Your task to perform on an android device: Add bose soundlink mini to the cart on ebay Image 0: 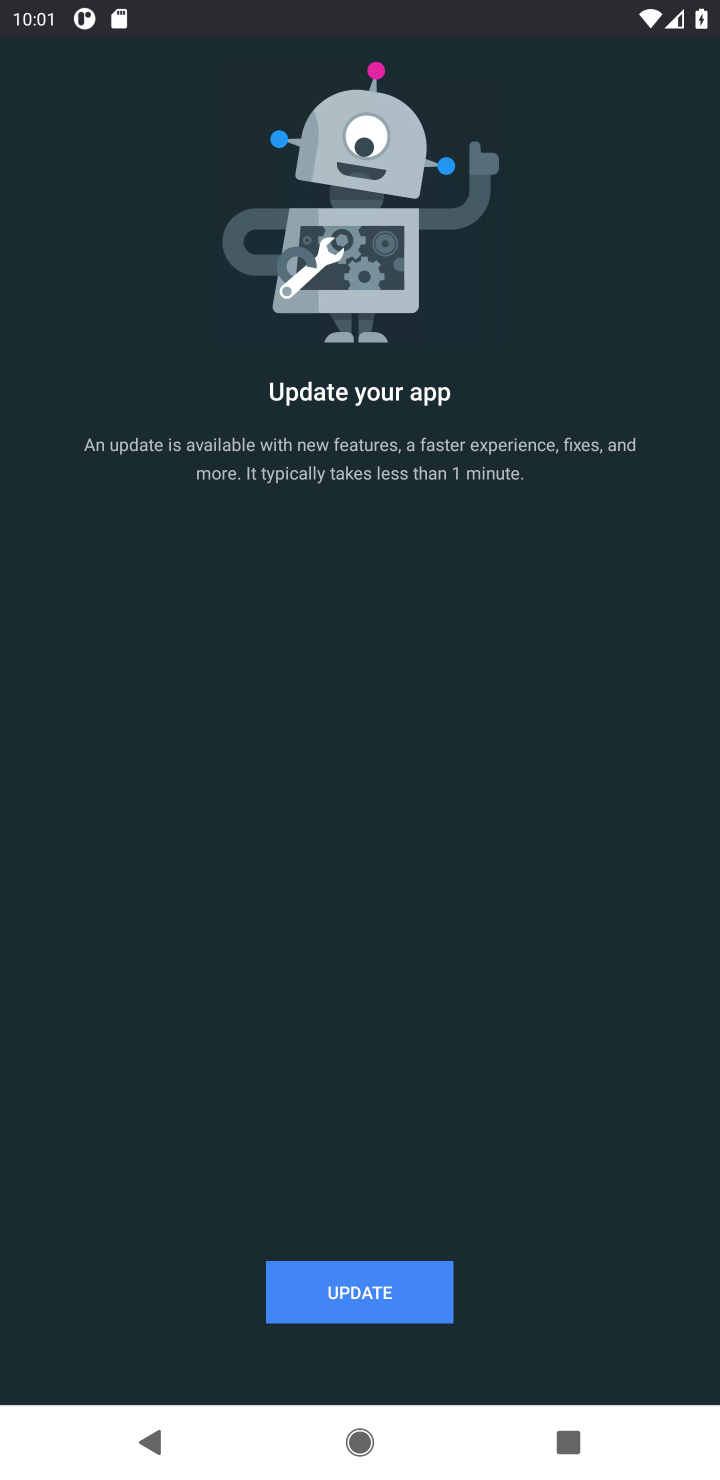
Step 0: press home button
Your task to perform on an android device: Add bose soundlink mini to the cart on ebay Image 1: 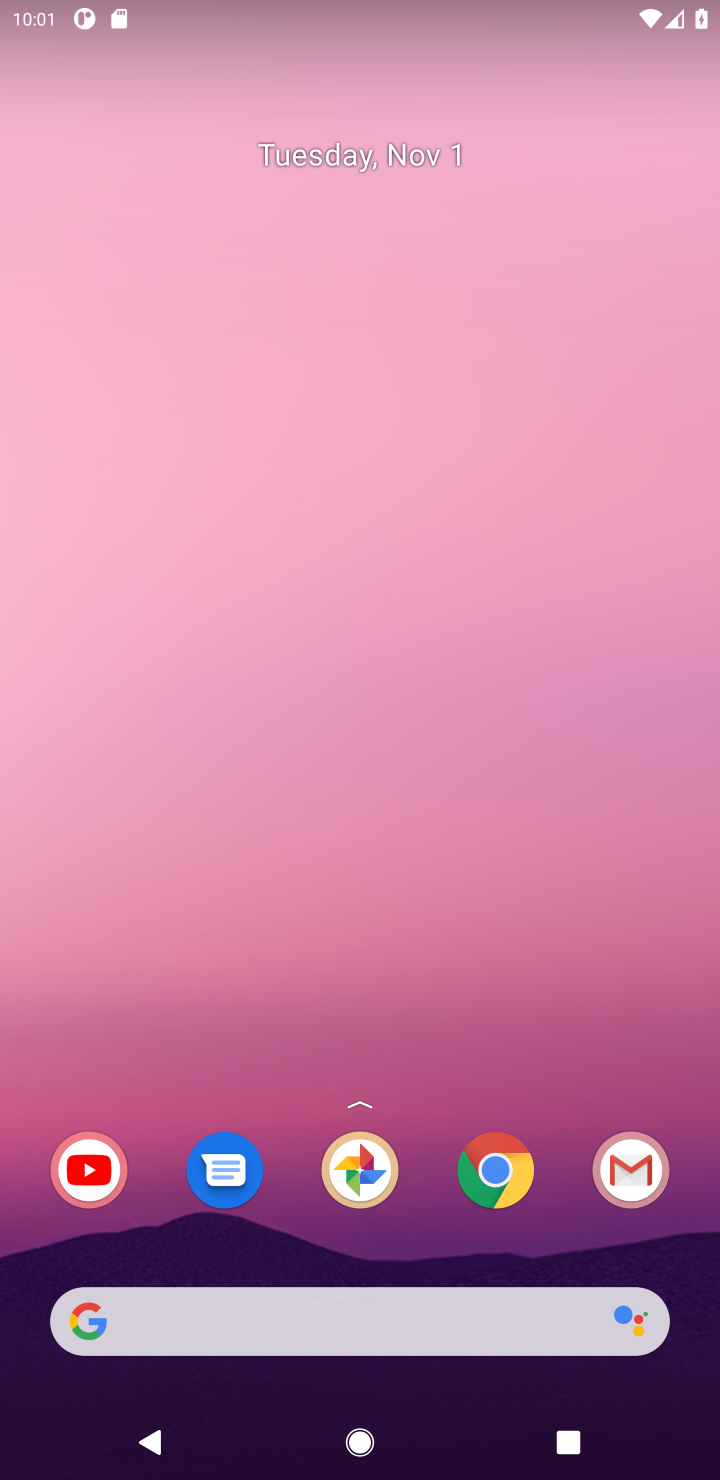
Step 1: click (495, 1172)
Your task to perform on an android device: Add bose soundlink mini to the cart on ebay Image 2: 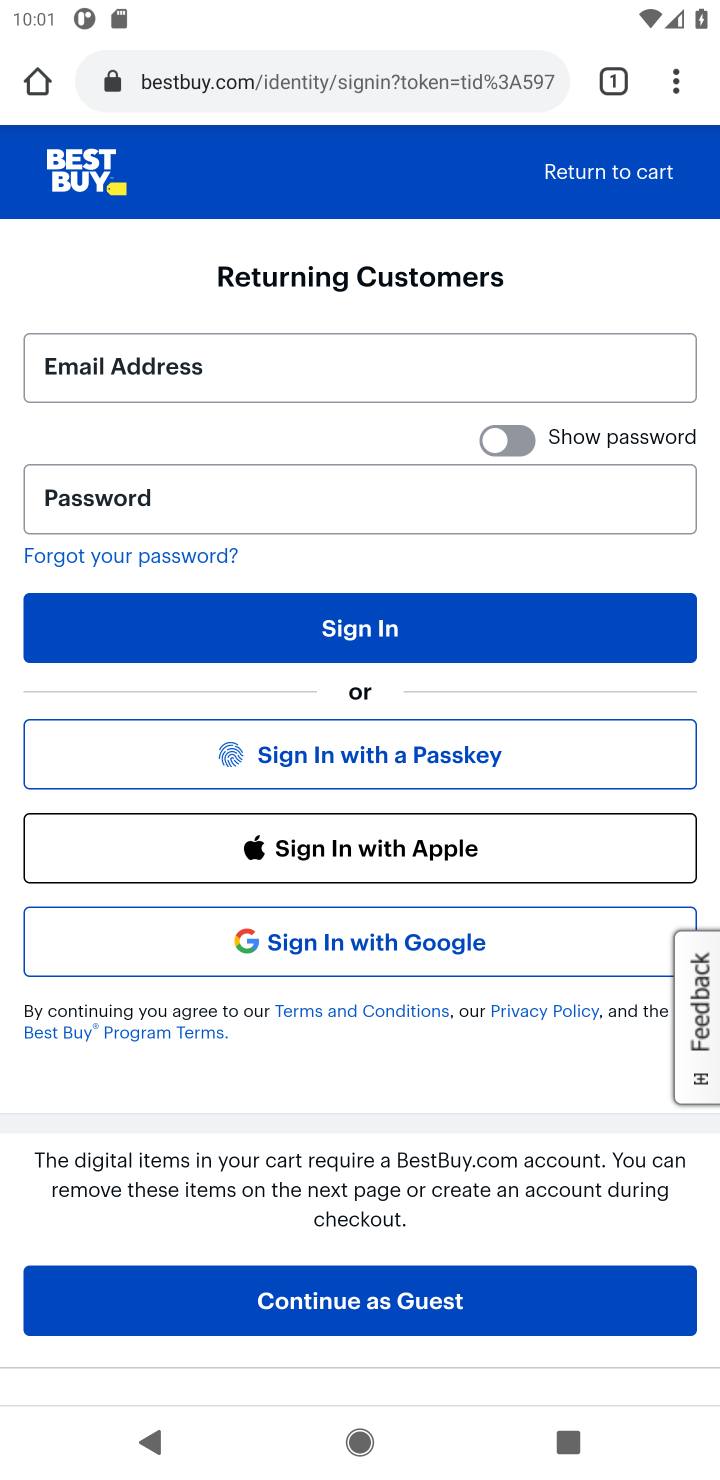
Step 2: click (369, 79)
Your task to perform on an android device: Add bose soundlink mini to the cart on ebay Image 3: 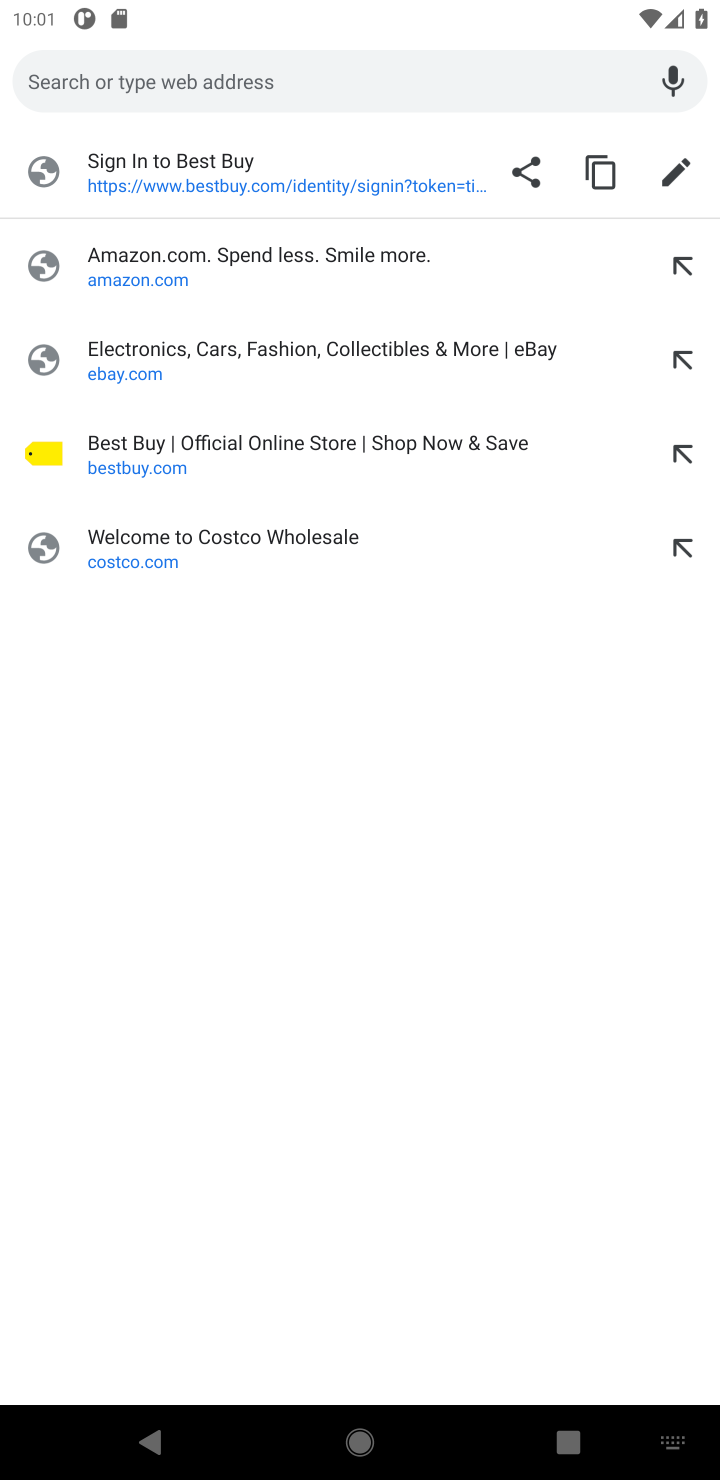
Step 3: type "ebay"
Your task to perform on an android device: Add bose soundlink mini to the cart on ebay Image 4: 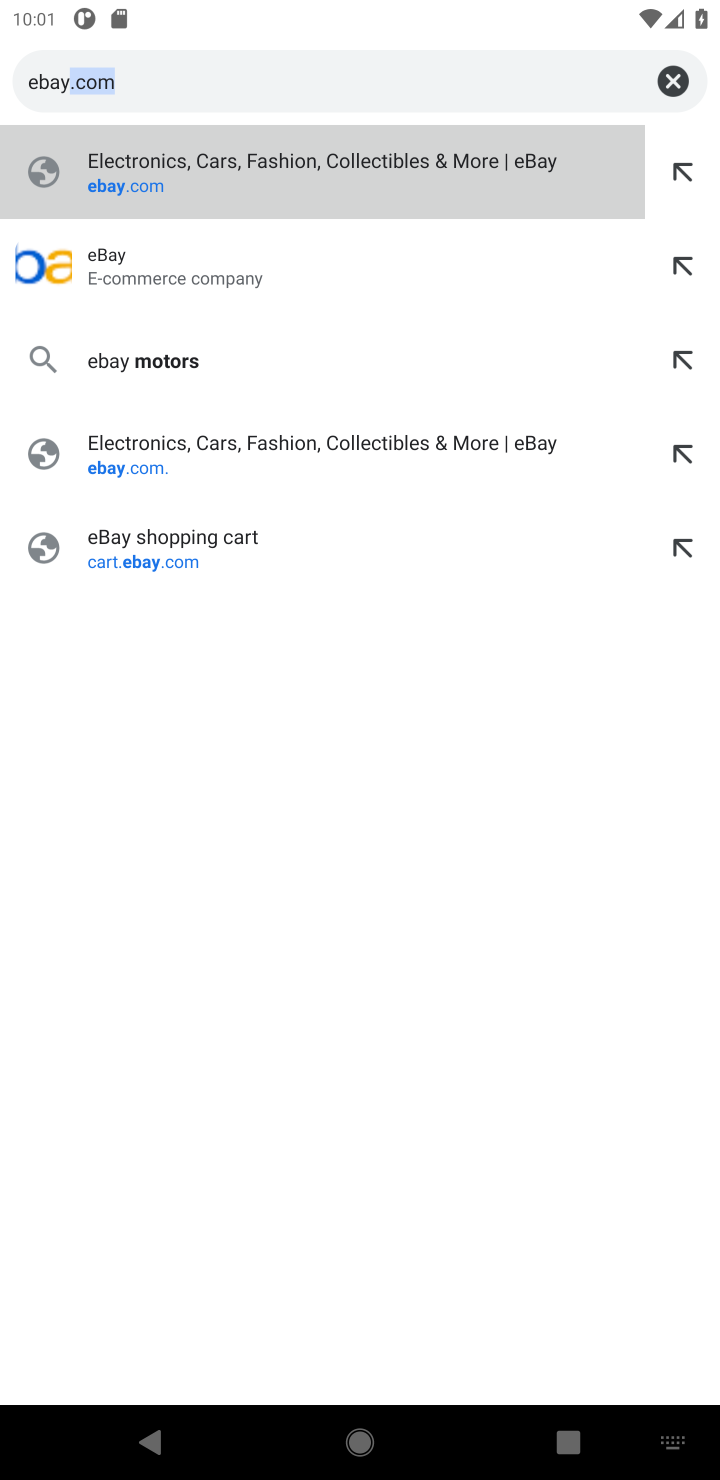
Step 4: press enter
Your task to perform on an android device: Add bose soundlink mini to the cart on ebay Image 5: 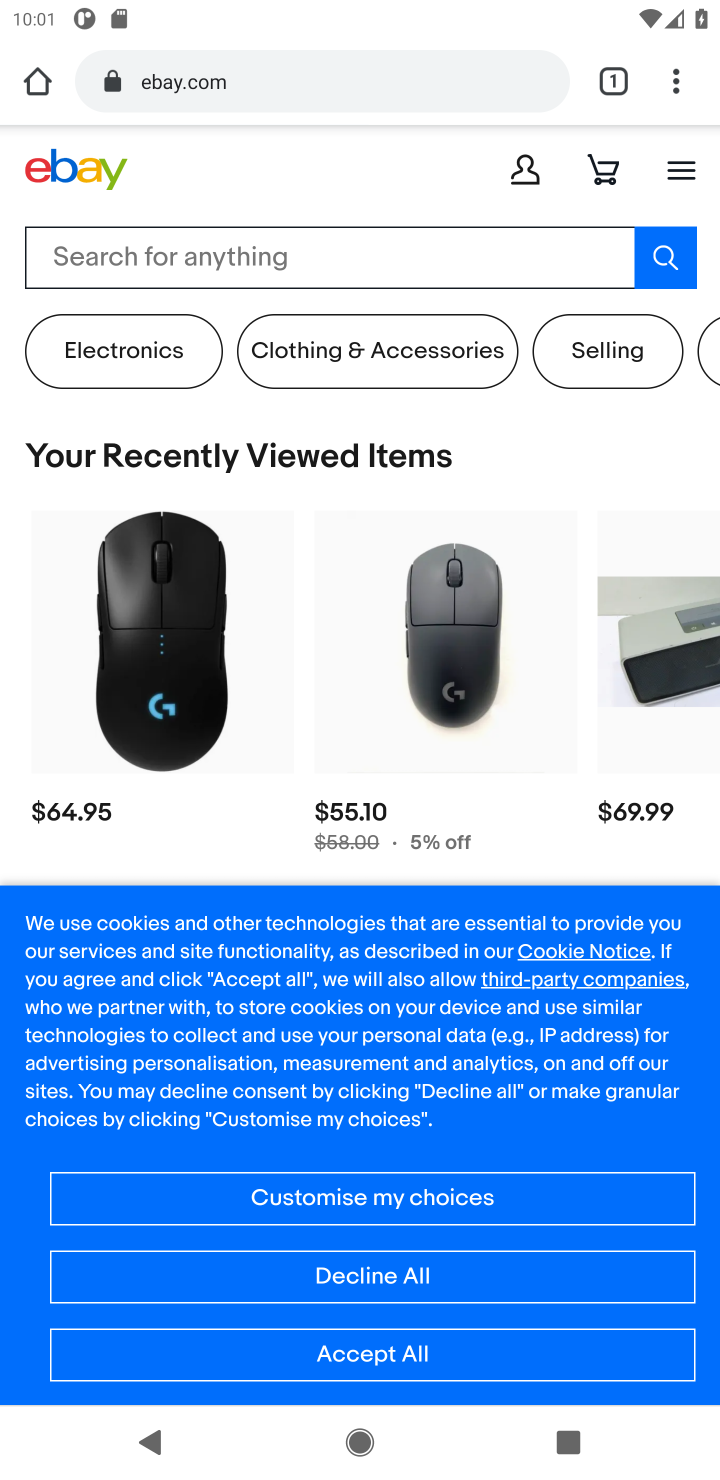
Step 5: click (413, 1356)
Your task to perform on an android device: Add bose soundlink mini to the cart on ebay Image 6: 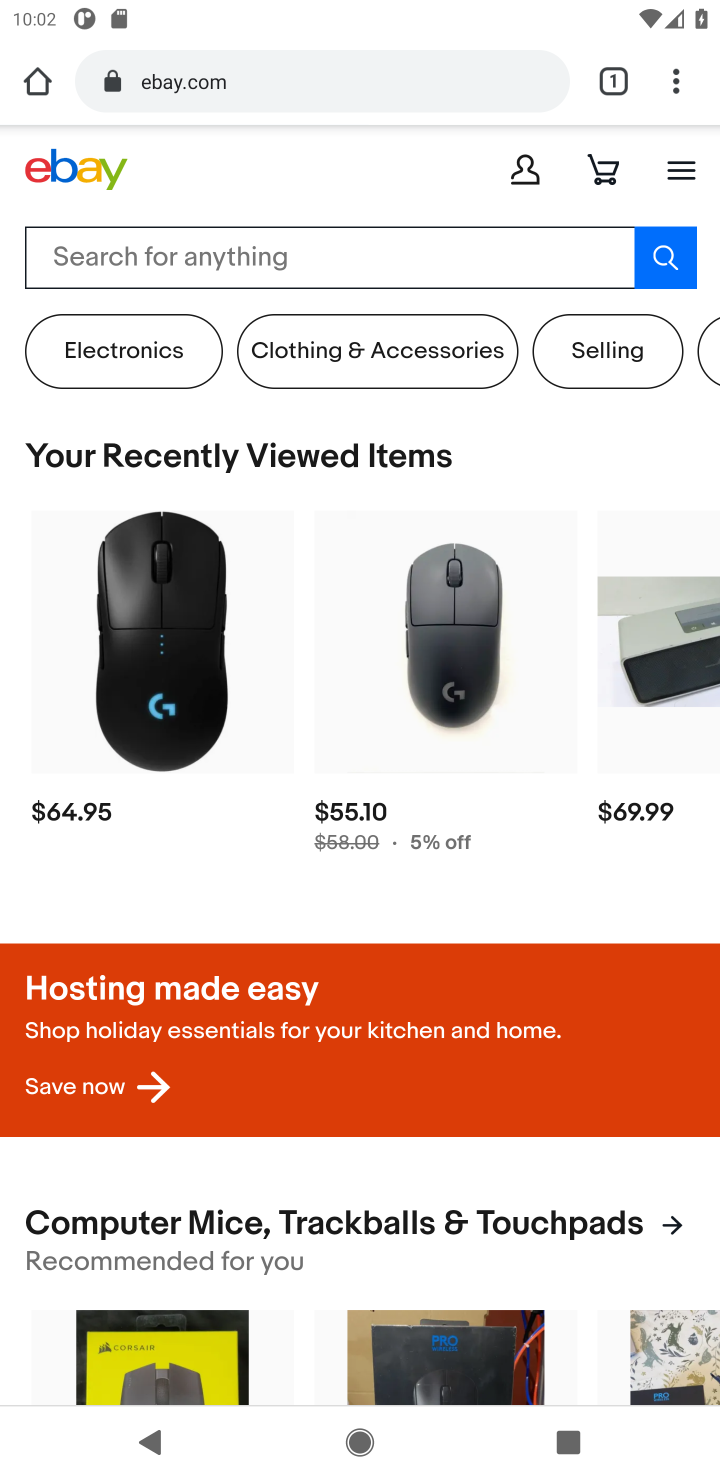
Step 6: click (280, 268)
Your task to perform on an android device: Add bose soundlink mini to the cart on ebay Image 7: 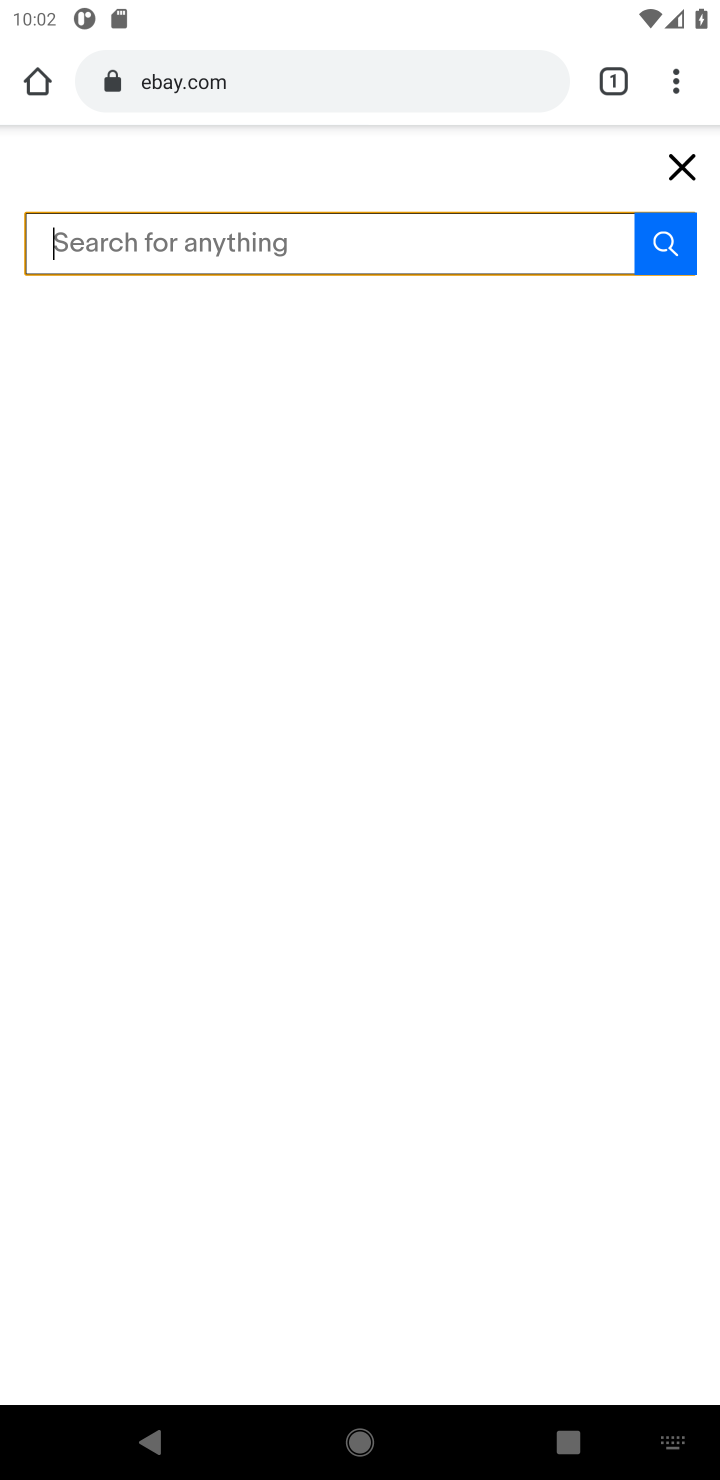
Step 7: type "bose soundlink mini"
Your task to perform on an android device: Add bose soundlink mini to the cart on ebay Image 8: 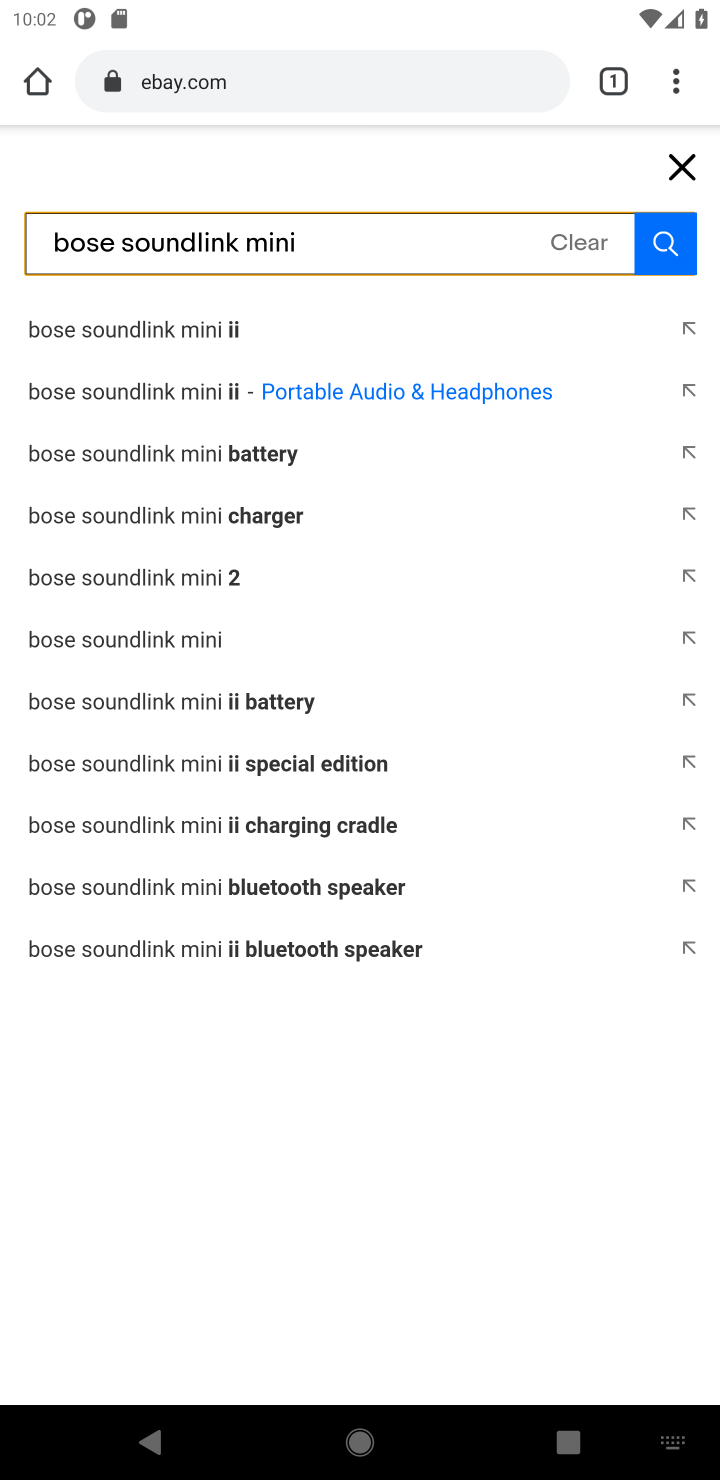
Step 8: type ""
Your task to perform on an android device: Add bose soundlink mini to the cart on ebay Image 9: 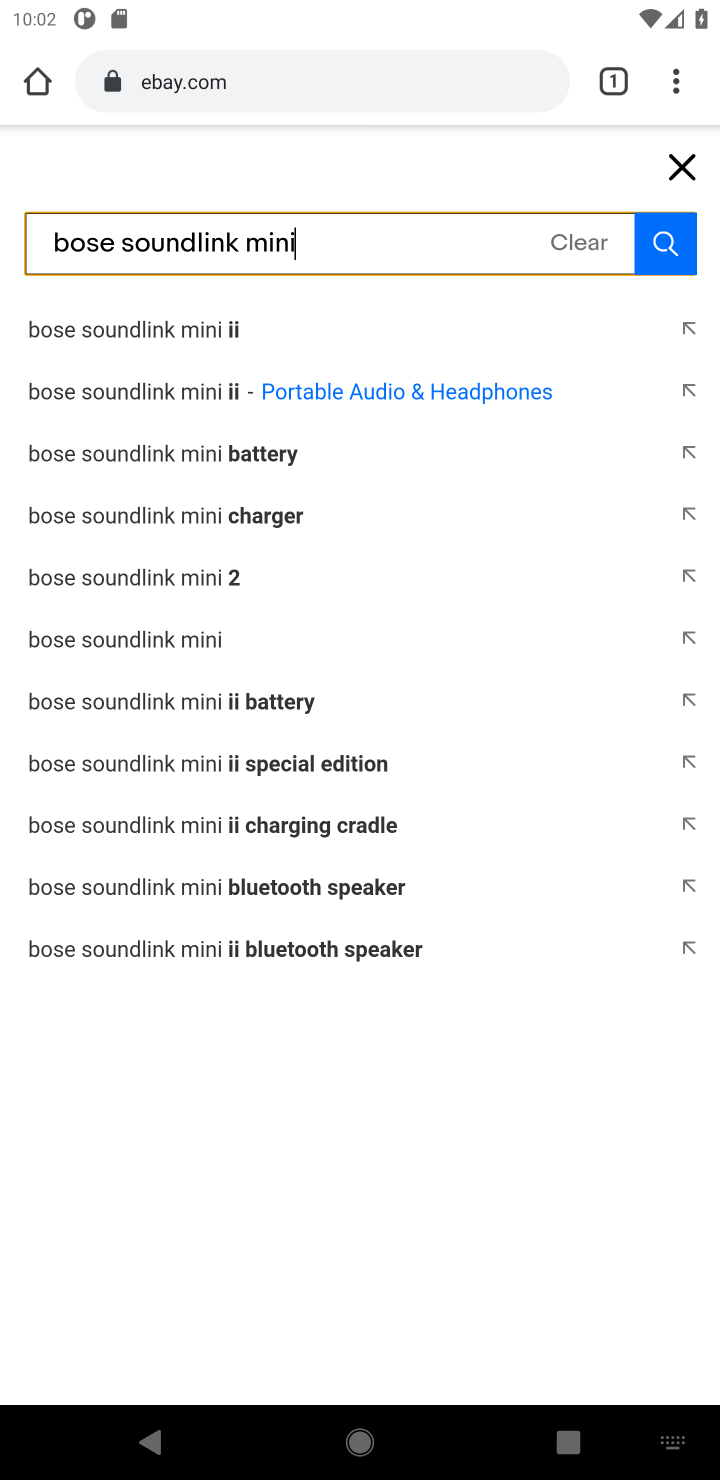
Step 9: press enter
Your task to perform on an android device: Add bose soundlink mini to the cart on ebay Image 10: 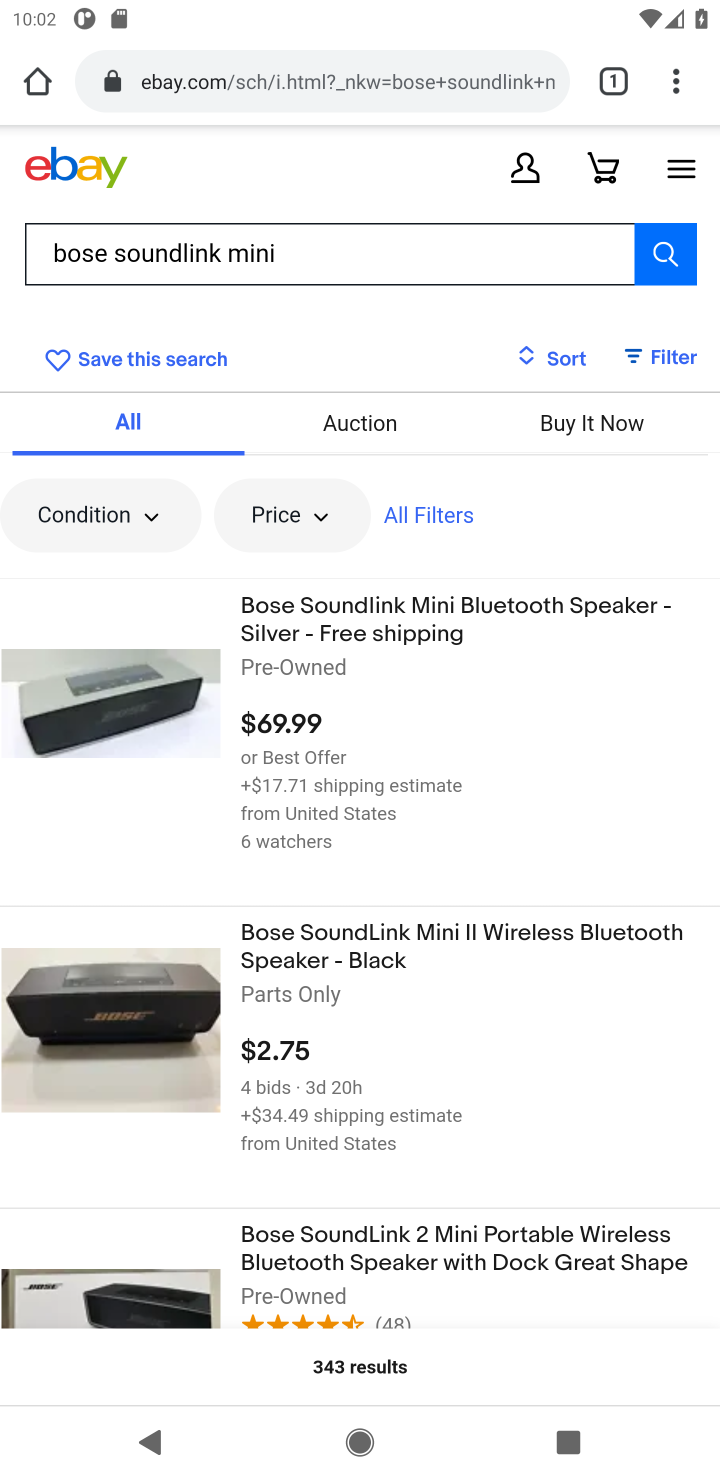
Step 10: click (376, 614)
Your task to perform on an android device: Add bose soundlink mini to the cart on ebay Image 11: 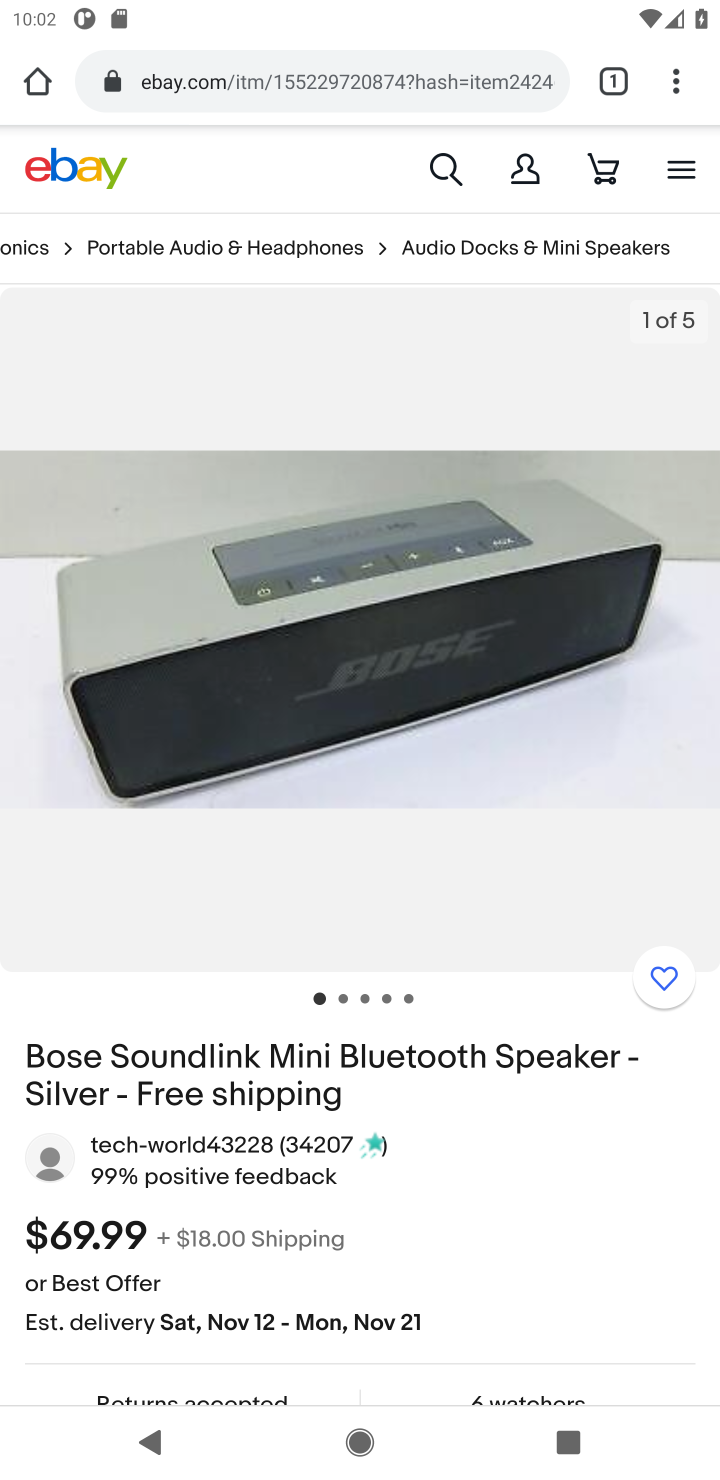
Step 11: drag from (469, 1052) to (429, 453)
Your task to perform on an android device: Add bose soundlink mini to the cart on ebay Image 12: 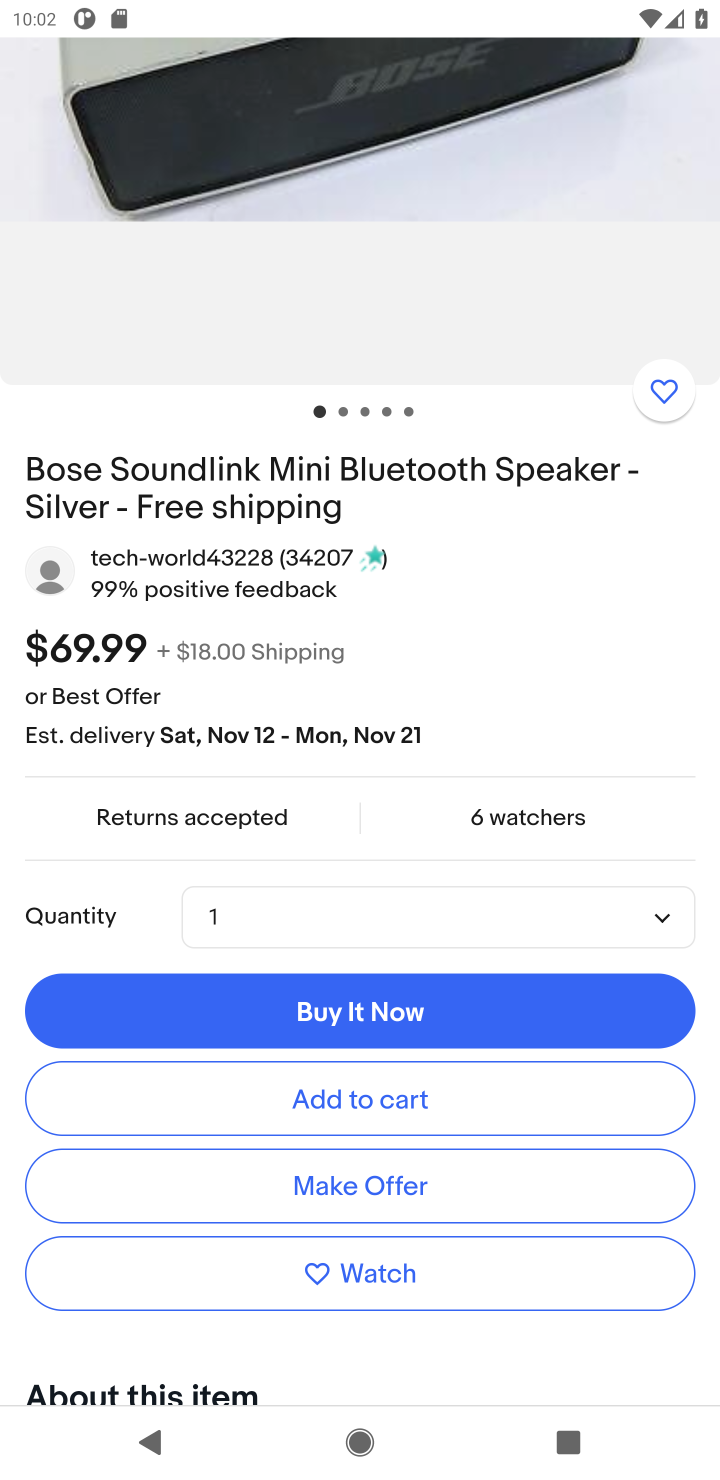
Step 12: click (426, 1102)
Your task to perform on an android device: Add bose soundlink mini to the cart on ebay Image 13: 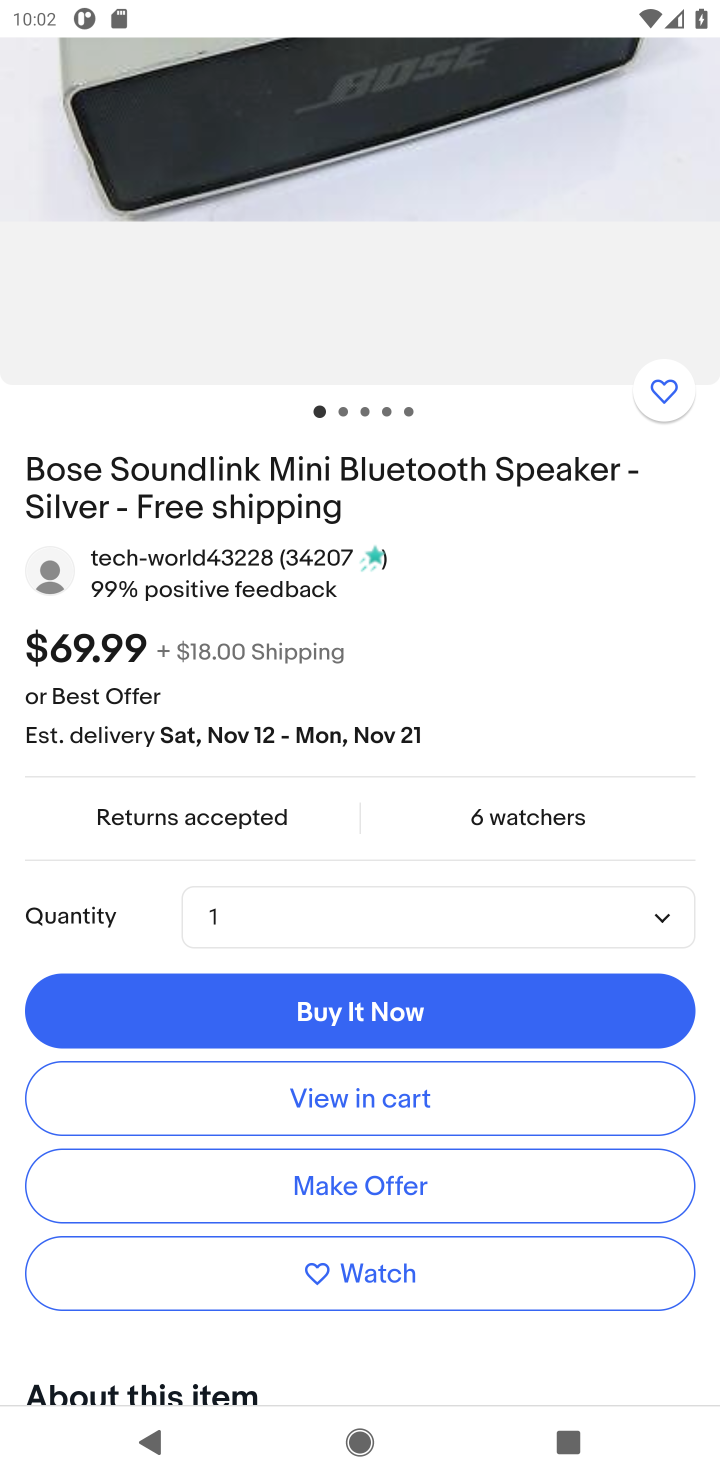
Step 13: click (428, 1111)
Your task to perform on an android device: Add bose soundlink mini to the cart on ebay Image 14: 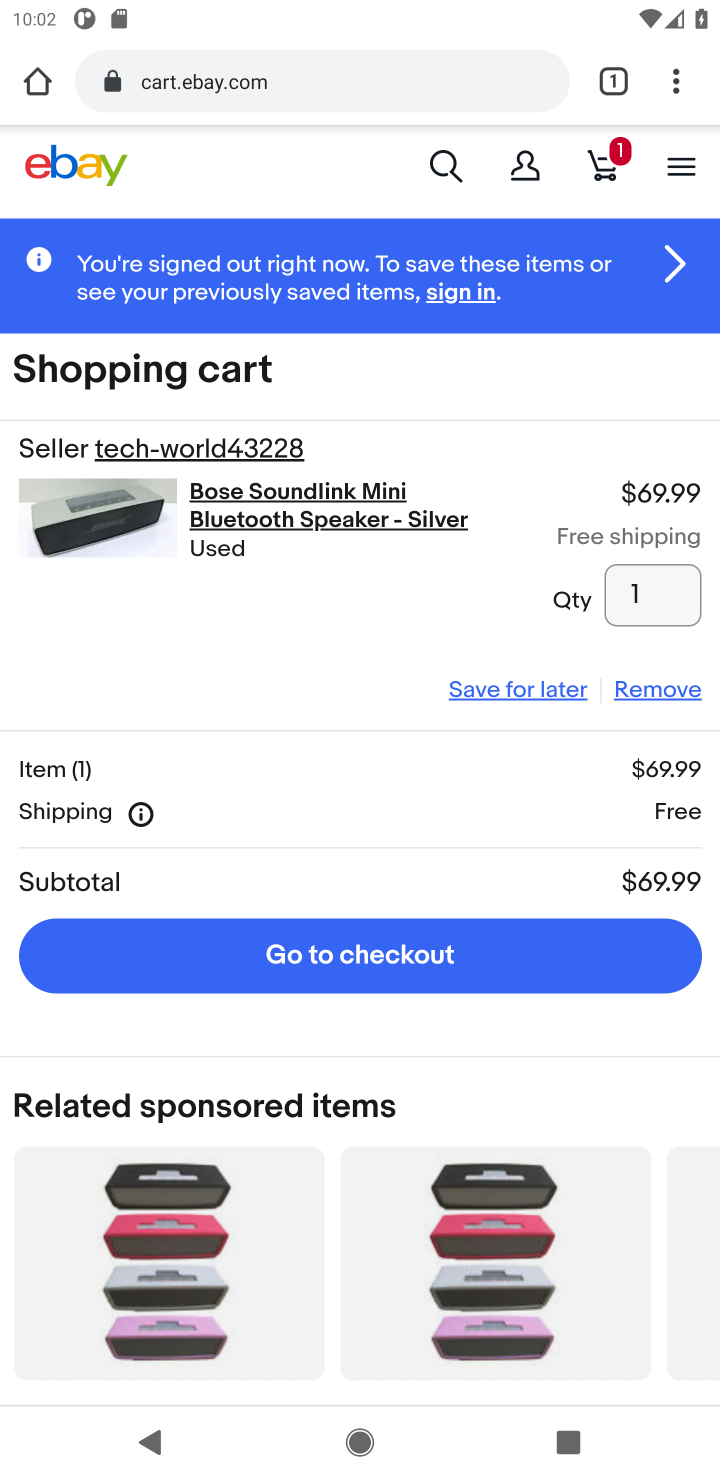
Step 14: click (418, 943)
Your task to perform on an android device: Add bose soundlink mini to the cart on ebay Image 15: 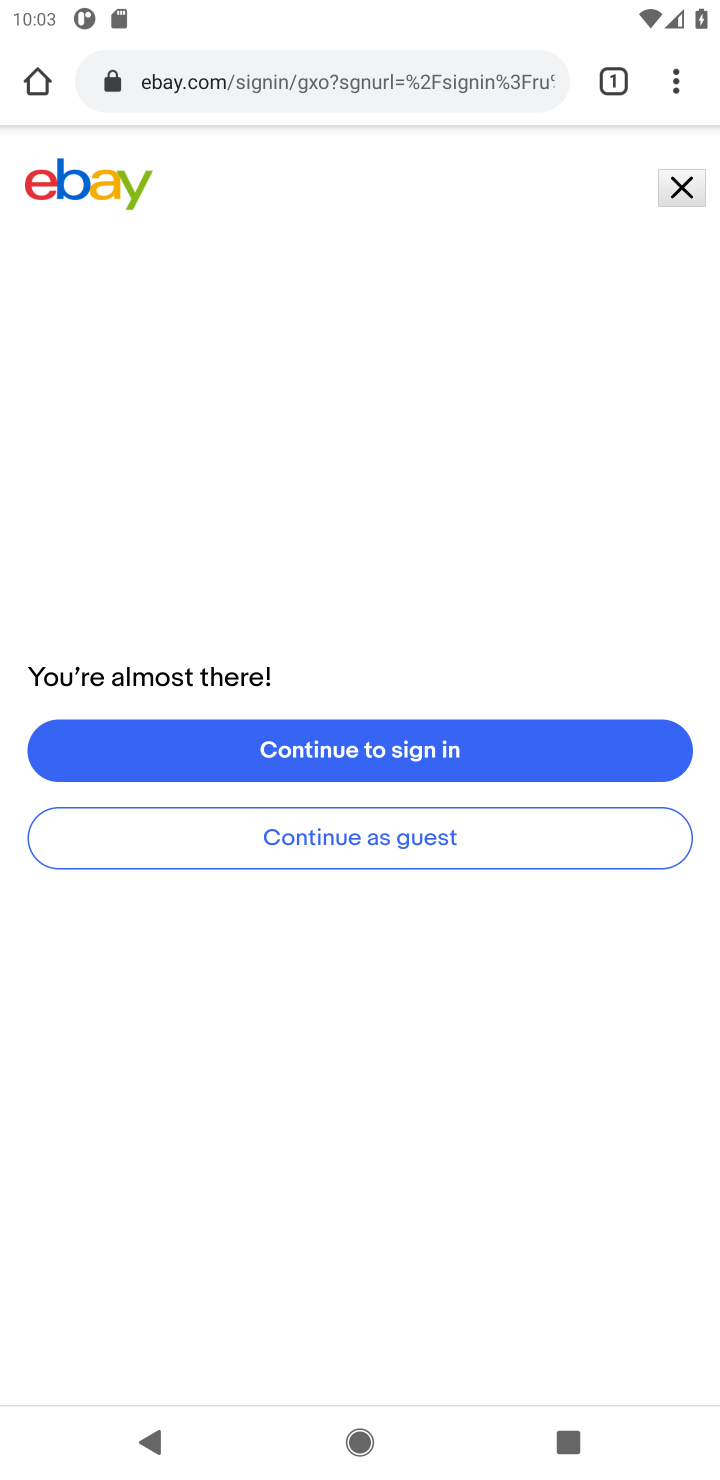
Step 15: click (391, 851)
Your task to perform on an android device: Add bose soundlink mini to the cart on ebay Image 16: 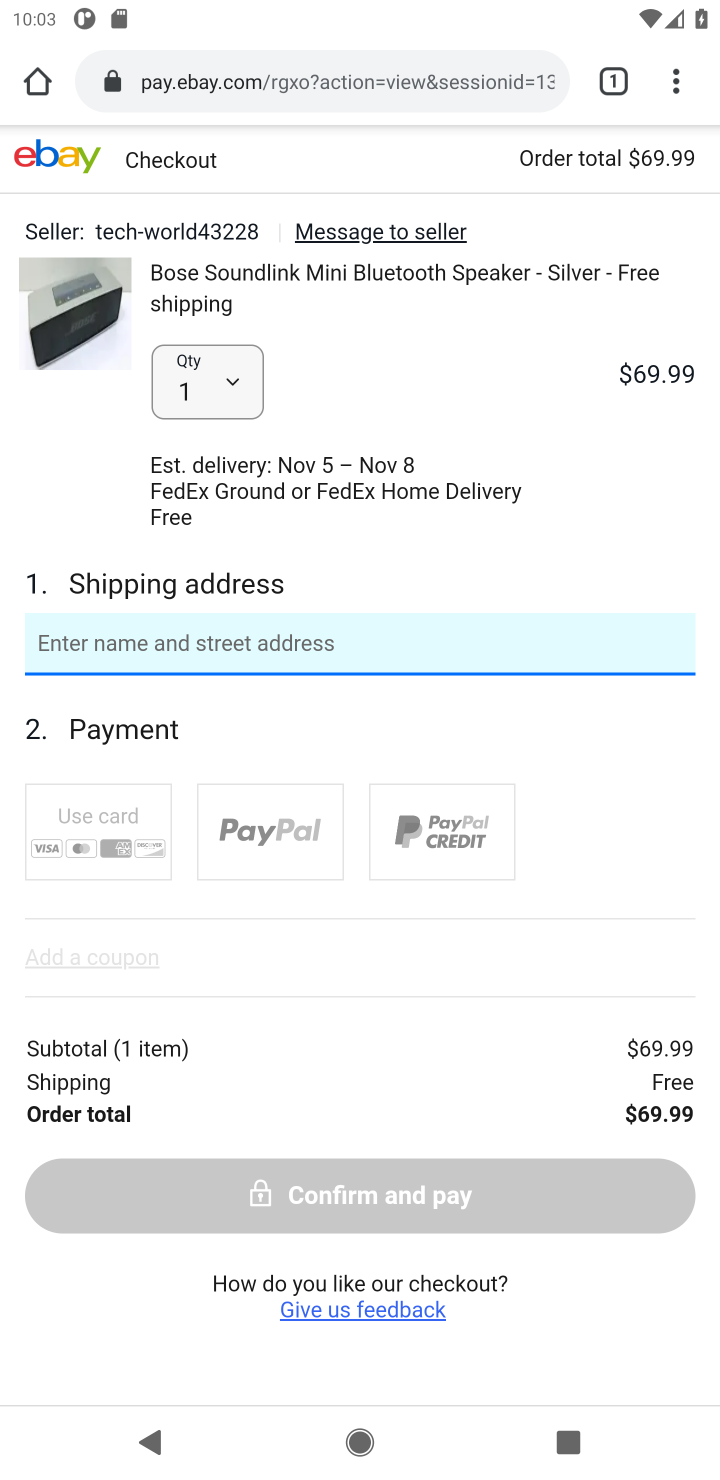
Step 16: task complete